Your task to perform on an android device: Open my contact list Image 0: 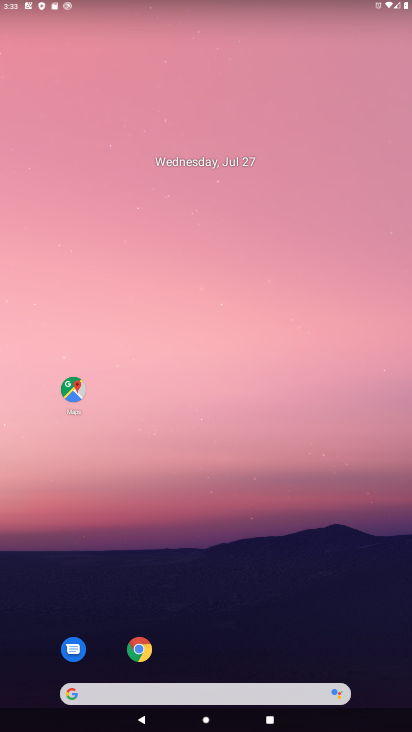
Step 0: drag from (366, 592) to (323, 154)
Your task to perform on an android device: Open my contact list Image 1: 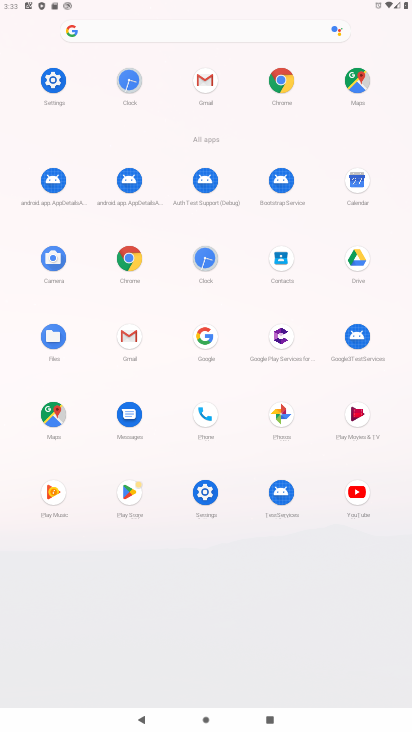
Step 1: click (279, 254)
Your task to perform on an android device: Open my contact list Image 2: 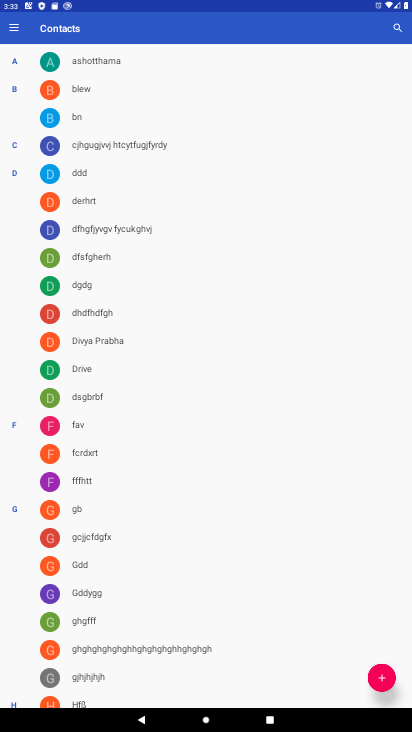
Step 2: task complete